Your task to perform on an android device: Open the stopwatch Image 0: 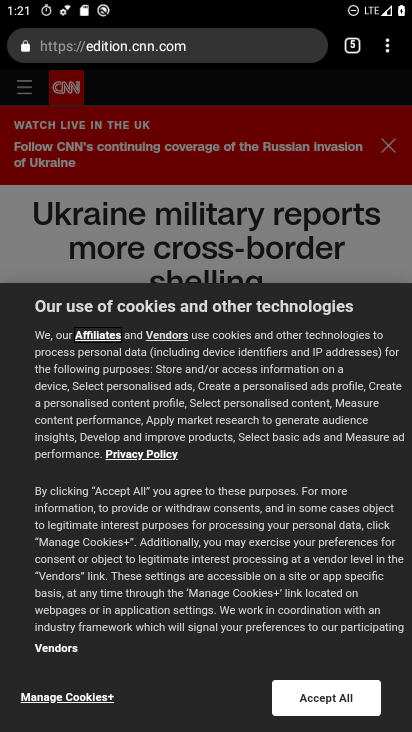
Step 0: press home button
Your task to perform on an android device: Open the stopwatch Image 1: 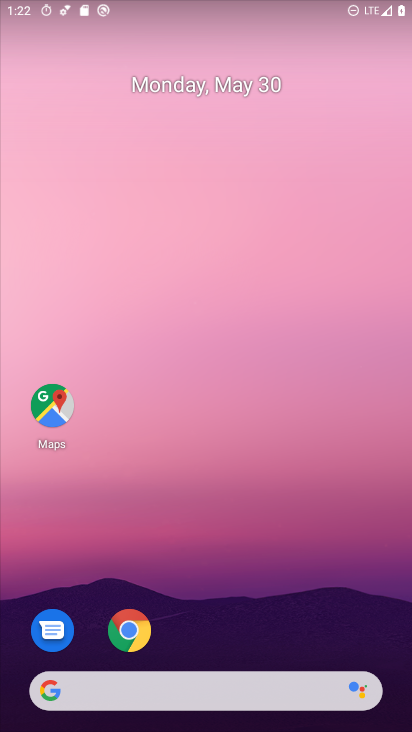
Step 1: drag from (216, 710) to (263, 144)
Your task to perform on an android device: Open the stopwatch Image 2: 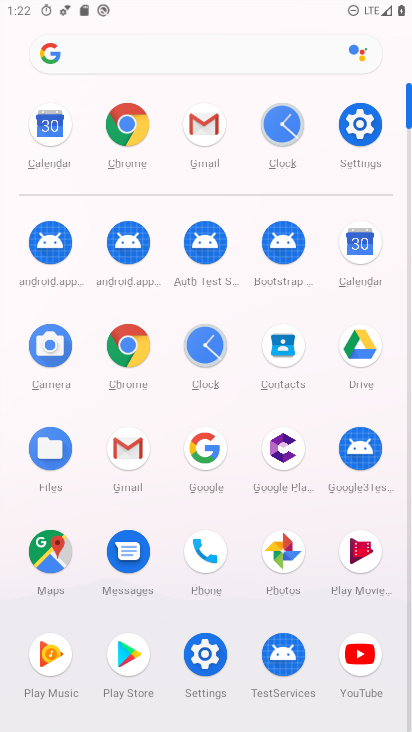
Step 2: click (288, 122)
Your task to perform on an android device: Open the stopwatch Image 3: 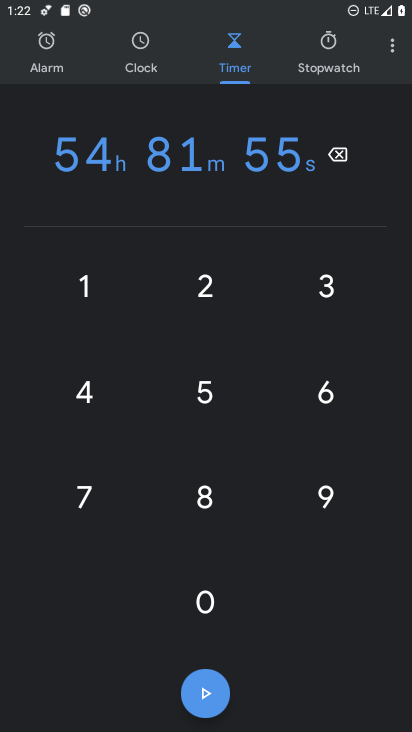
Step 3: click (202, 705)
Your task to perform on an android device: Open the stopwatch Image 4: 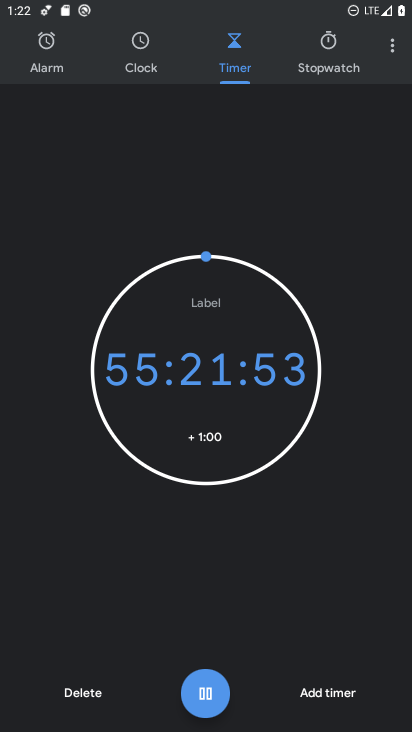
Step 4: click (338, 690)
Your task to perform on an android device: Open the stopwatch Image 5: 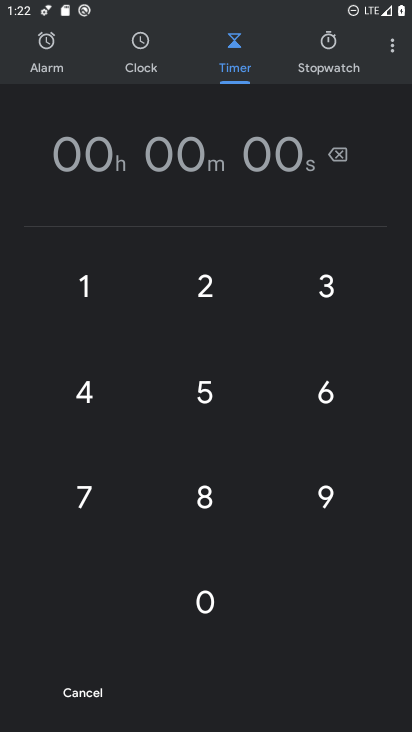
Step 5: click (202, 387)
Your task to perform on an android device: Open the stopwatch Image 6: 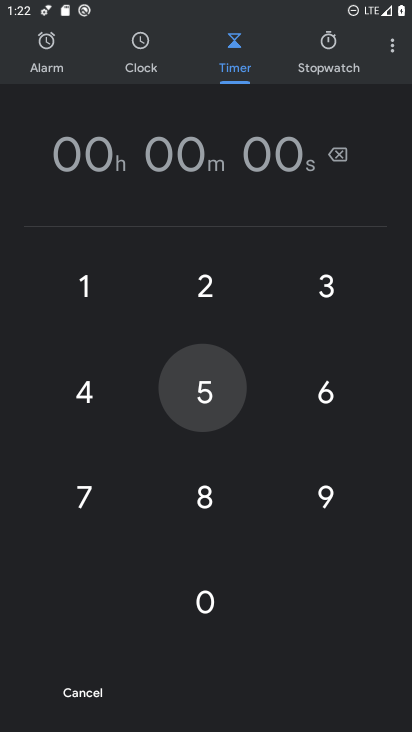
Step 6: click (112, 380)
Your task to perform on an android device: Open the stopwatch Image 7: 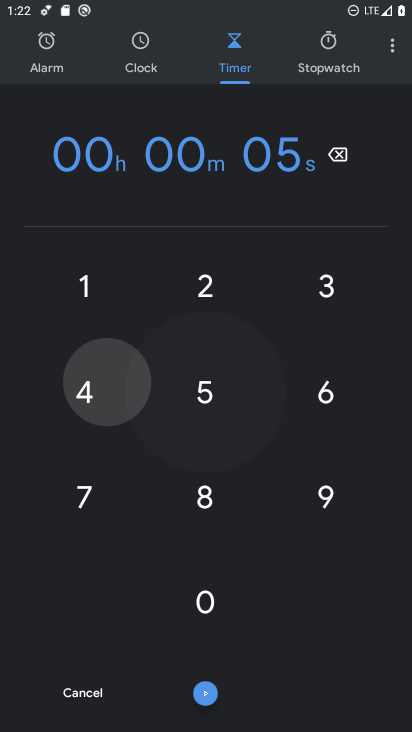
Step 7: drag from (142, 493) to (138, 458)
Your task to perform on an android device: Open the stopwatch Image 8: 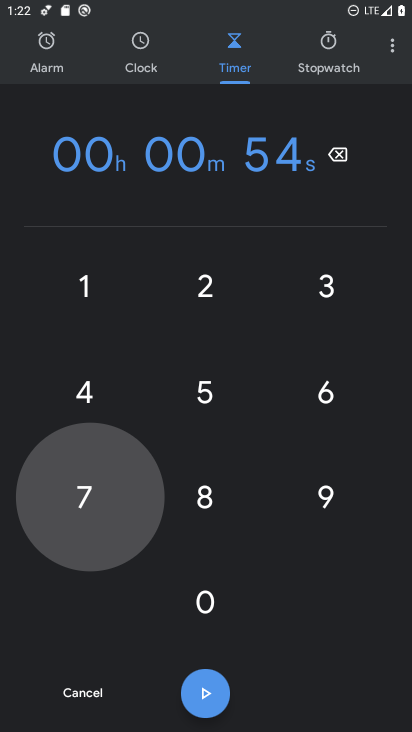
Step 8: click (149, 325)
Your task to perform on an android device: Open the stopwatch Image 9: 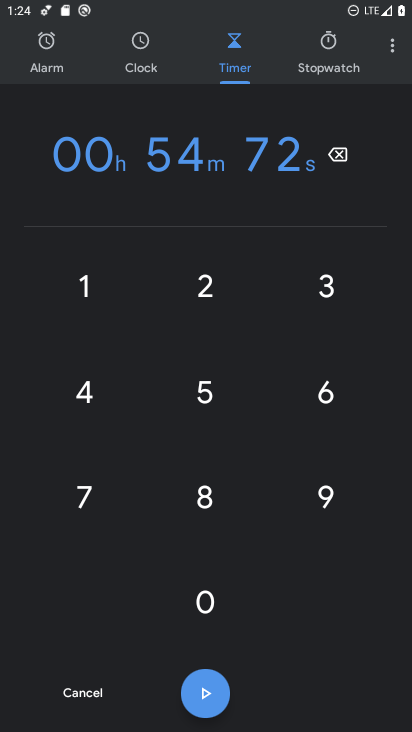
Step 9: click (335, 49)
Your task to perform on an android device: Open the stopwatch Image 10: 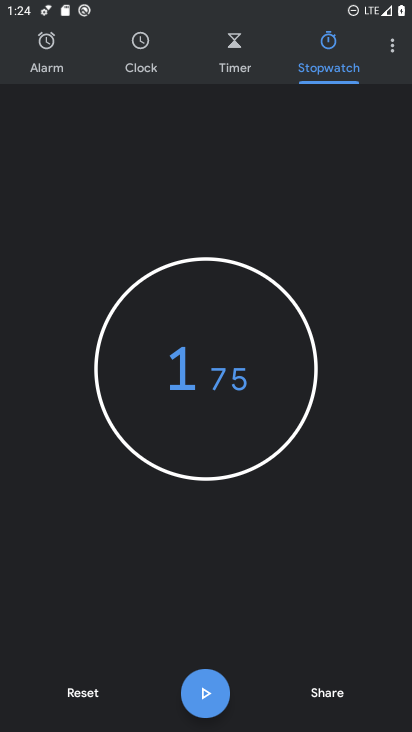
Step 10: click (213, 697)
Your task to perform on an android device: Open the stopwatch Image 11: 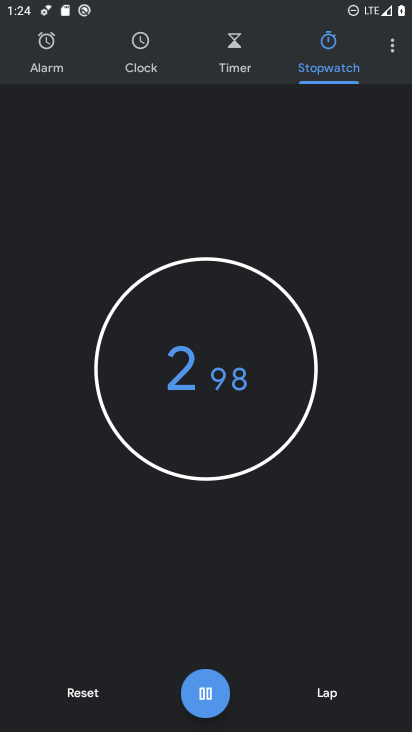
Step 11: task complete